Your task to perform on an android device: turn on sleep mode Image 0: 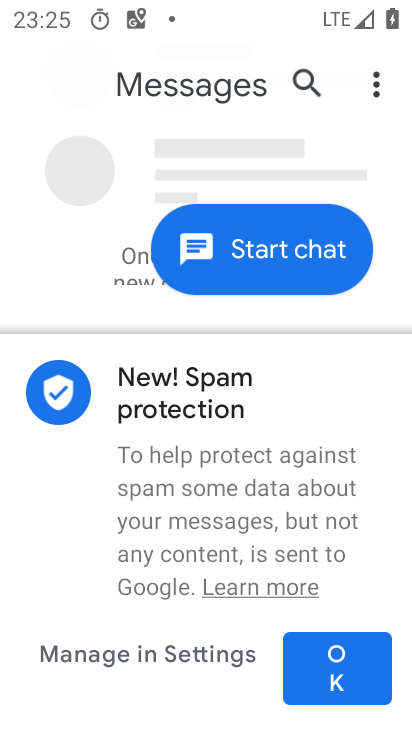
Step 0: press home button
Your task to perform on an android device: turn on sleep mode Image 1: 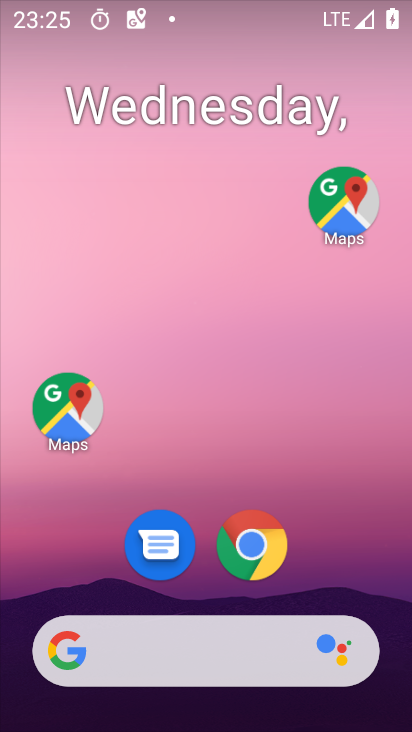
Step 1: drag from (366, 583) to (356, 18)
Your task to perform on an android device: turn on sleep mode Image 2: 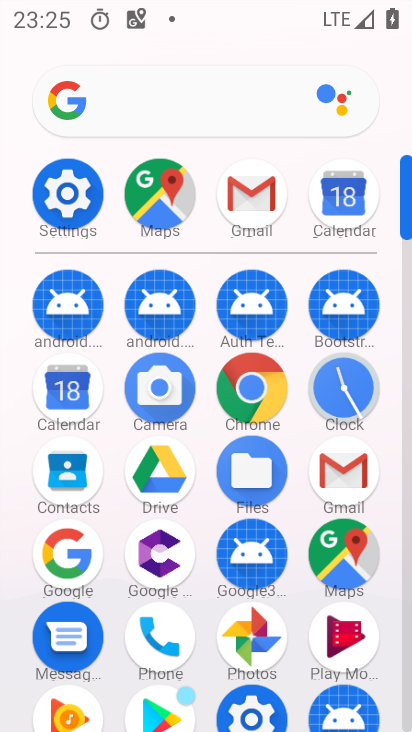
Step 2: click (60, 187)
Your task to perform on an android device: turn on sleep mode Image 3: 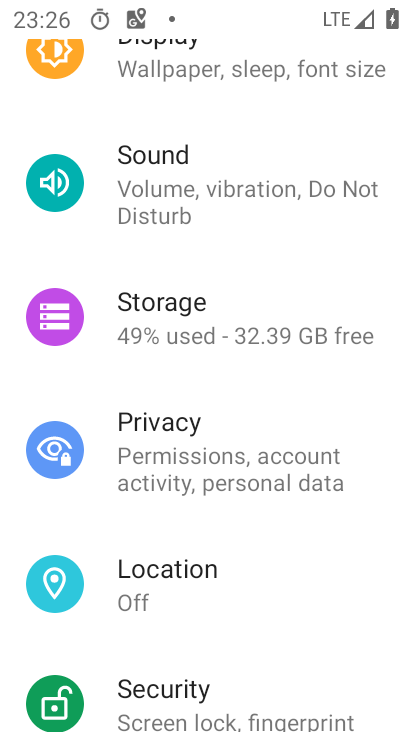
Step 3: drag from (152, 351) to (134, 509)
Your task to perform on an android device: turn on sleep mode Image 4: 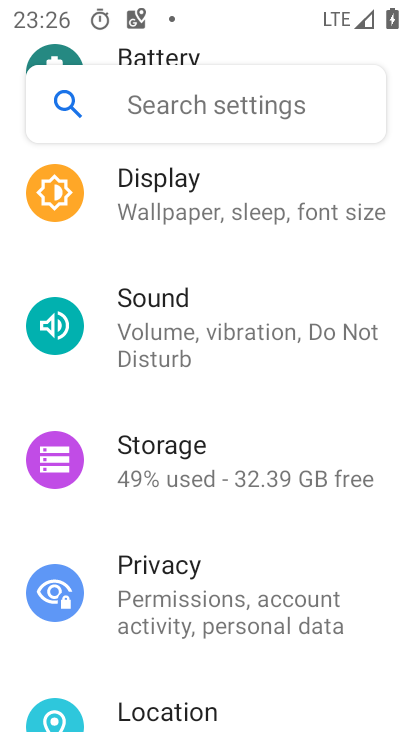
Step 4: click (341, 191)
Your task to perform on an android device: turn on sleep mode Image 5: 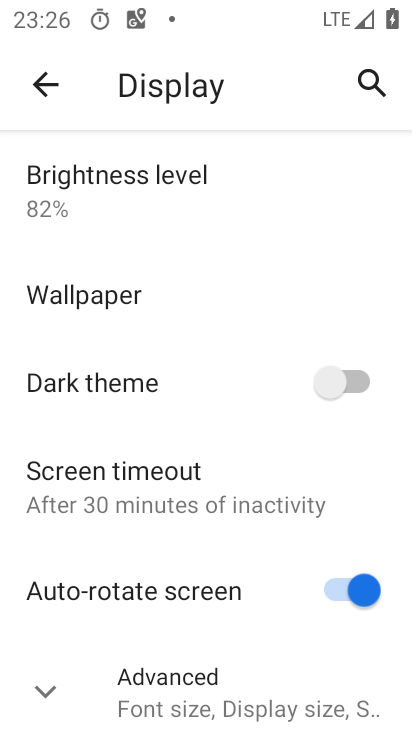
Step 5: click (244, 696)
Your task to perform on an android device: turn on sleep mode Image 6: 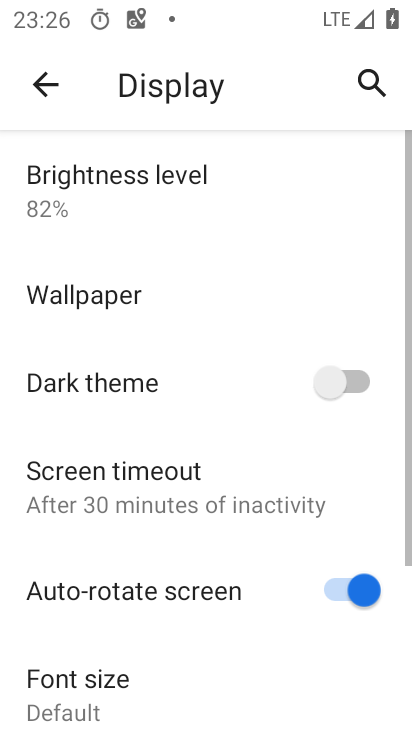
Step 6: drag from (234, 668) to (216, 90)
Your task to perform on an android device: turn on sleep mode Image 7: 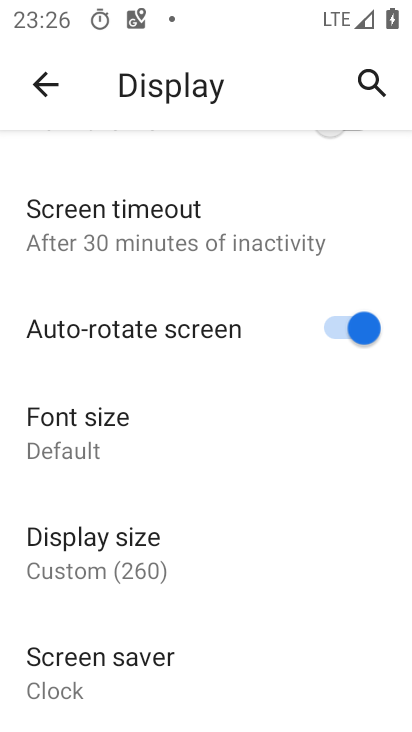
Step 7: click (38, 85)
Your task to perform on an android device: turn on sleep mode Image 8: 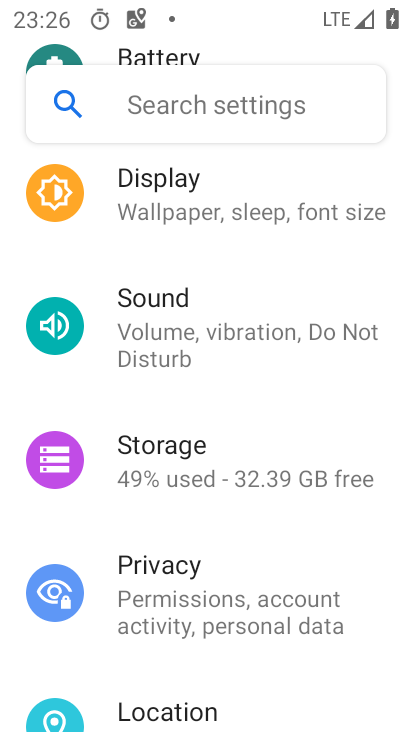
Step 8: task complete